Your task to perform on an android device: change timer sound Image 0: 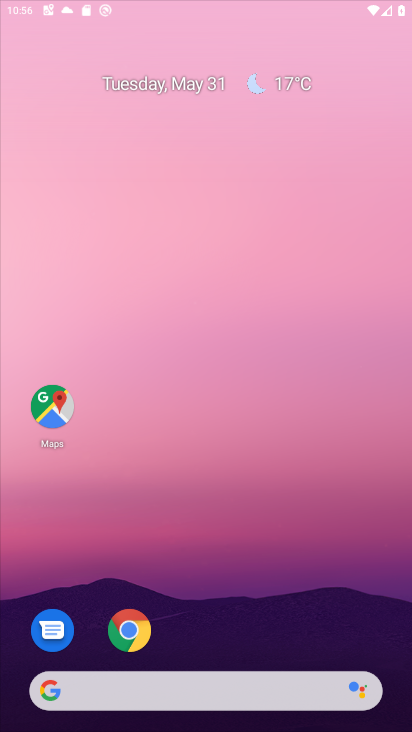
Step 0: drag from (297, 611) to (219, 5)
Your task to perform on an android device: change timer sound Image 1: 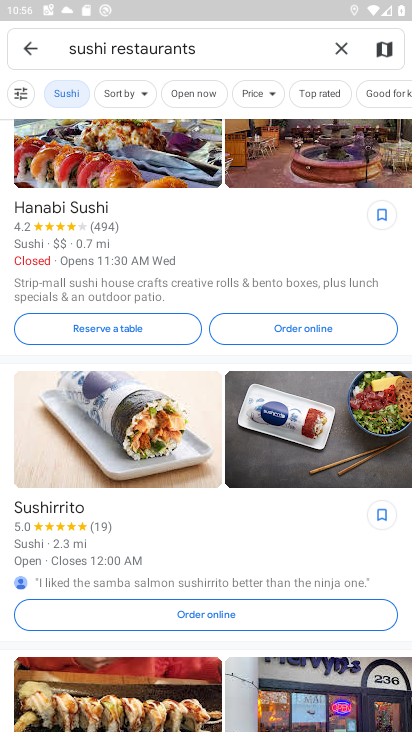
Step 1: press home button
Your task to perform on an android device: change timer sound Image 2: 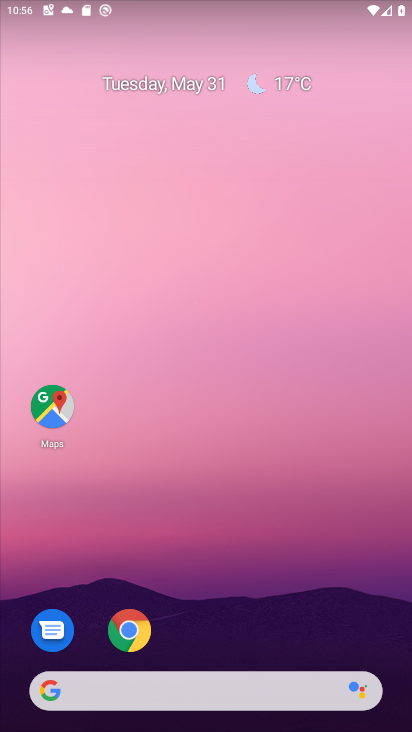
Step 2: drag from (291, 541) to (151, 17)
Your task to perform on an android device: change timer sound Image 3: 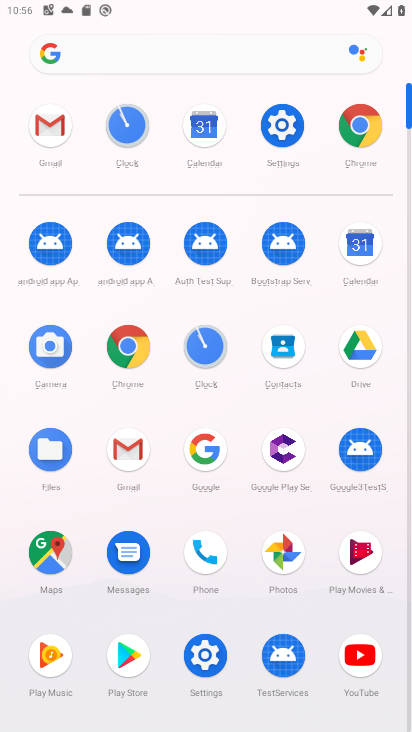
Step 3: click (199, 342)
Your task to perform on an android device: change timer sound Image 4: 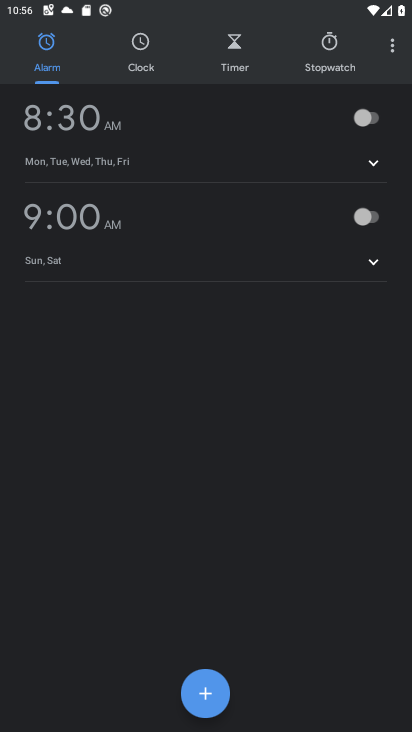
Step 4: click (395, 37)
Your task to perform on an android device: change timer sound Image 5: 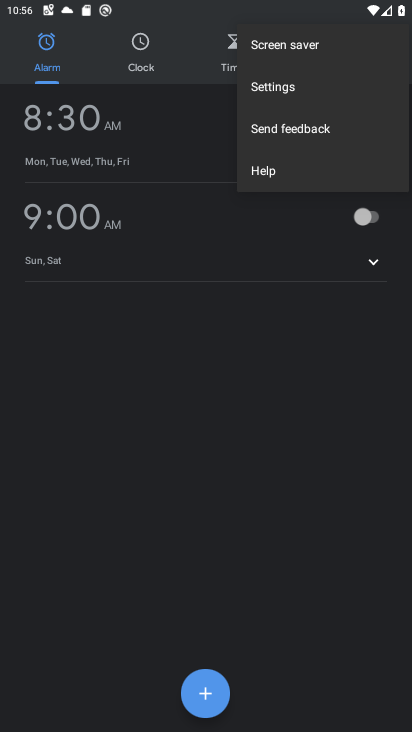
Step 5: click (288, 96)
Your task to perform on an android device: change timer sound Image 6: 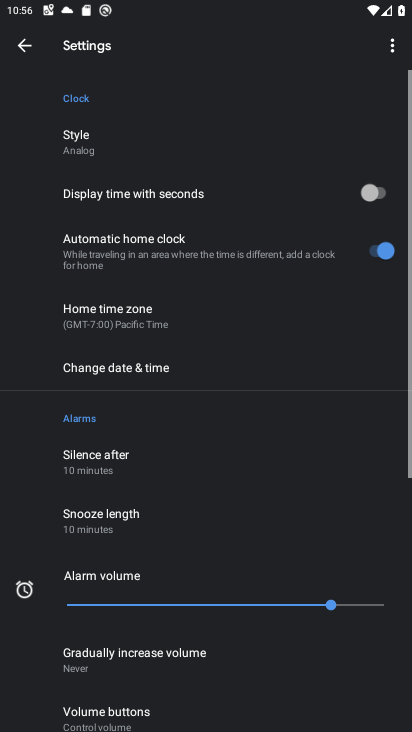
Step 6: drag from (159, 531) to (196, 2)
Your task to perform on an android device: change timer sound Image 7: 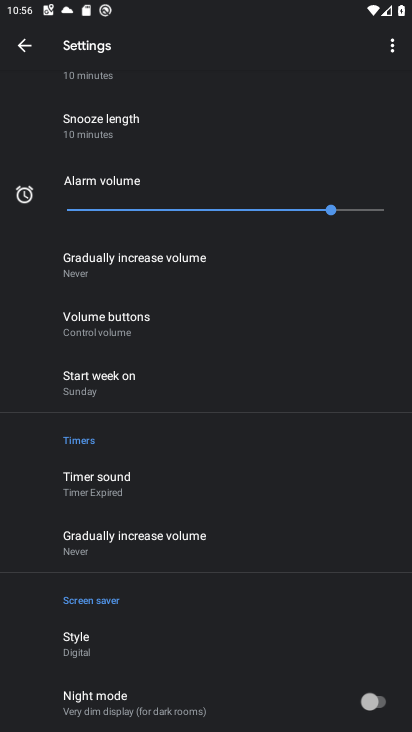
Step 7: drag from (143, 494) to (248, 67)
Your task to perform on an android device: change timer sound Image 8: 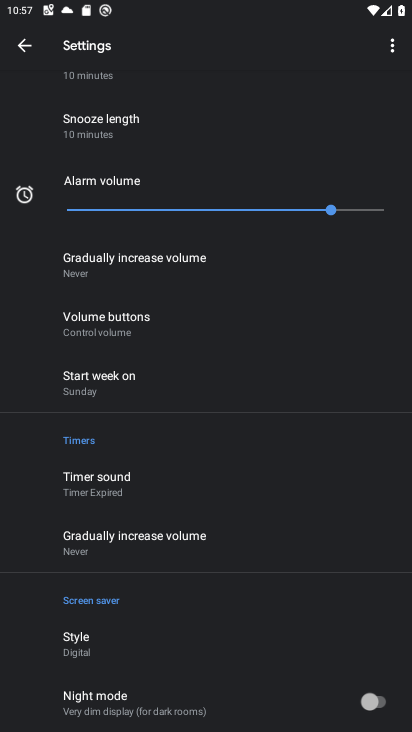
Step 8: click (109, 490)
Your task to perform on an android device: change timer sound Image 9: 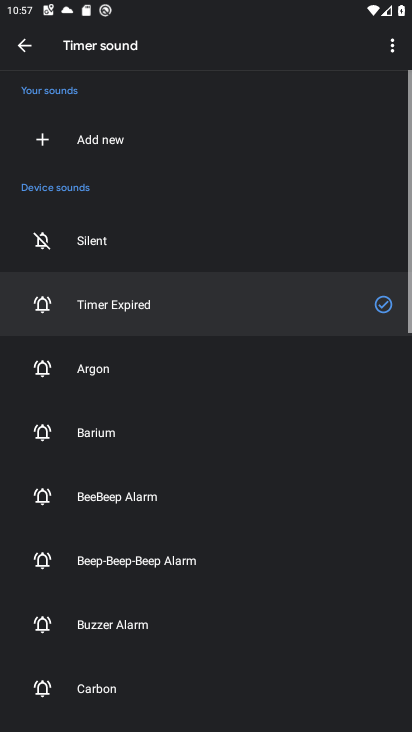
Step 9: click (173, 379)
Your task to perform on an android device: change timer sound Image 10: 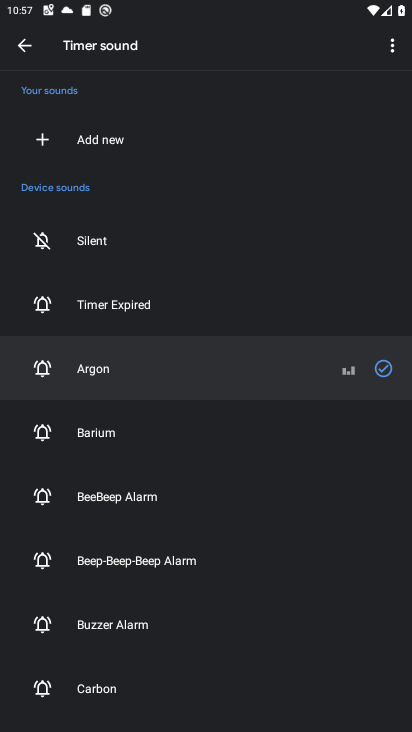
Step 10: task complete